Your task to perform on an android device: change keyboard looks Image 0: 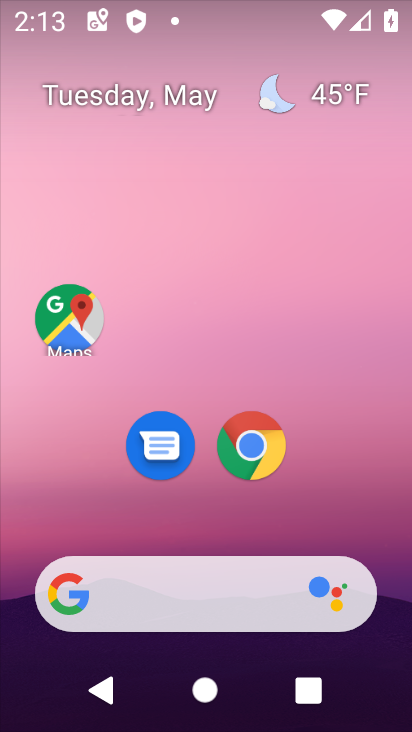
Step 0: drag from (242, 443) to (342, 11)
Your task to perform on an android device: change keyboard looks Image 1: 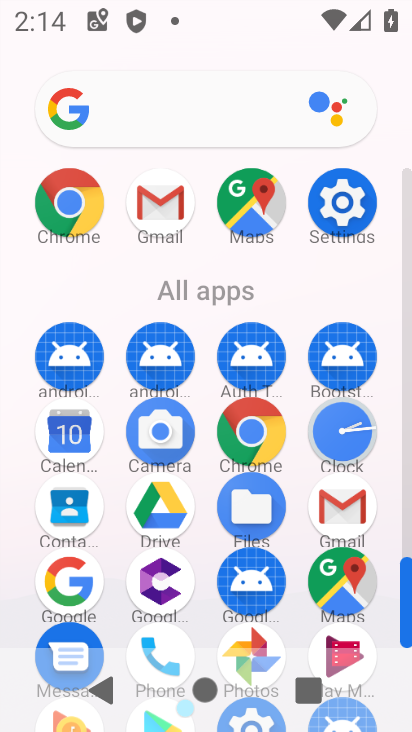
Step 1: click (355, 210)
Your task to perform on an android device: change keyboard looks Image 2: 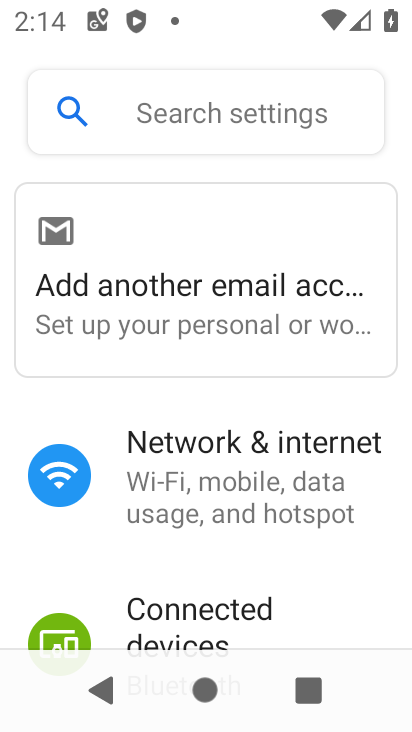
Step 2: drag from (194, 565) to (358, 45)
Your task to perform on an android device: change keyboard looks Image 3: 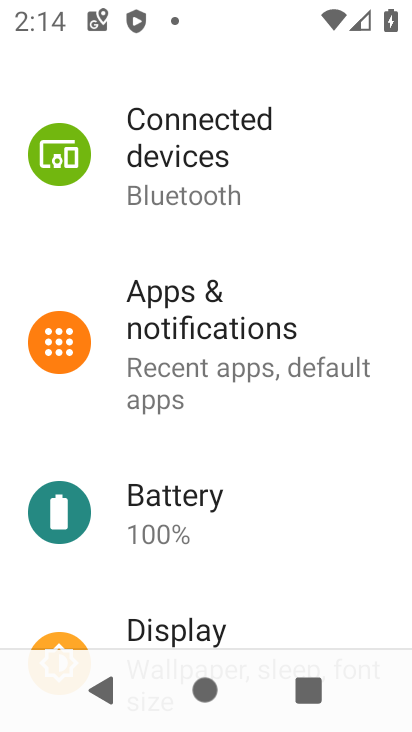
Step 3: drag from (233, 588) to (394, 19)
Your task to perform on an android device: change keyboard looks Image 4: 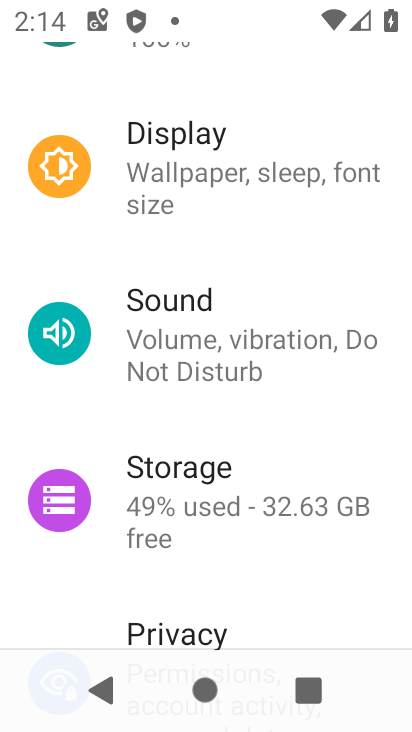
Step 4: drag from (209, 551) to (381, 42)
Your task to perform on an android device: change keyboard looks Image 5: 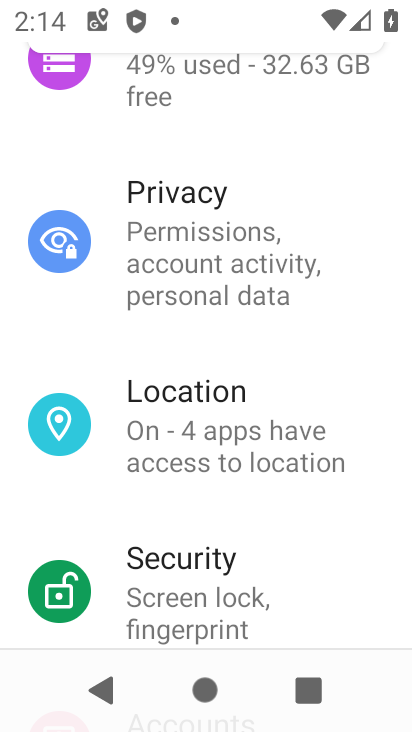
Step 5: drag from (196, 576) to (352, 19)
Your task to perform on an android device: change keyboard looks Image 6: 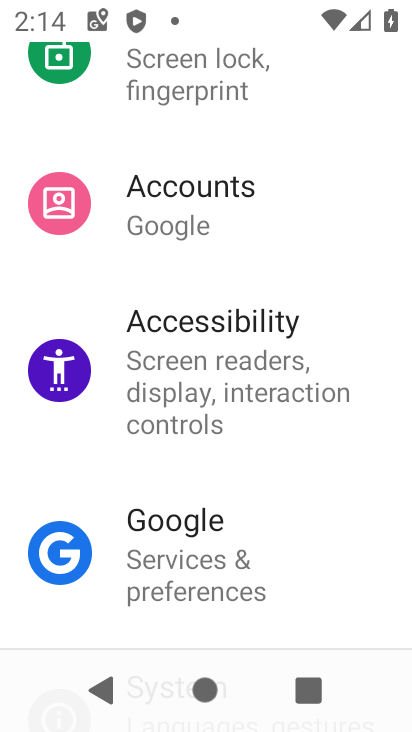
Step 6: drag from (184, 543) to (311, 43)
Your task to perform on an android device: change keyboard looks Image 7: 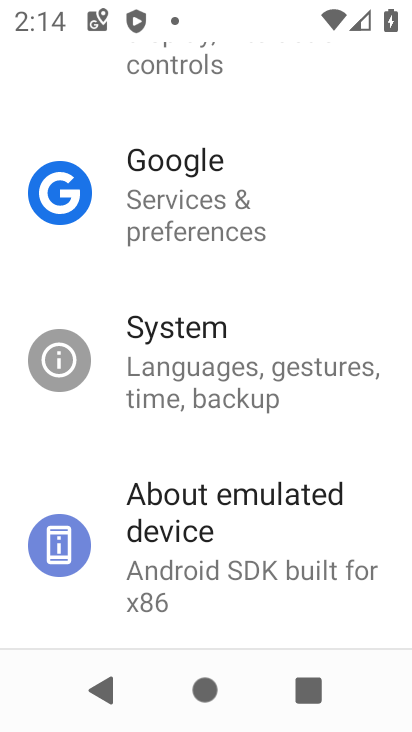
Step 7: drag from (185, 591) to (330, 100)
Your task to perform on an android device: change keyboard looks Image 8: 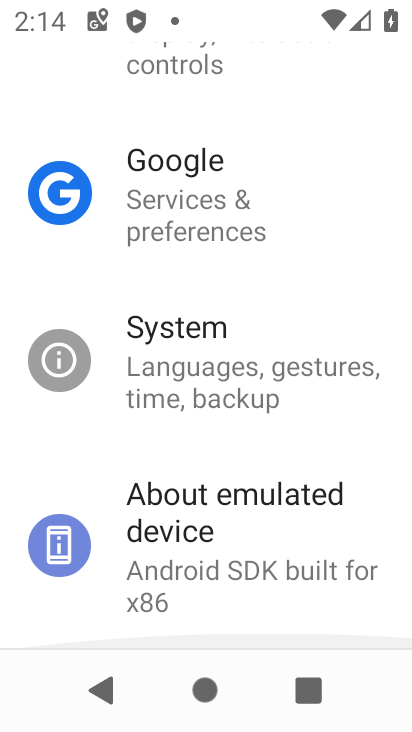
Step 8: click (211, 523)
Your task to perform on an android device: change keyboard looks Image 9: 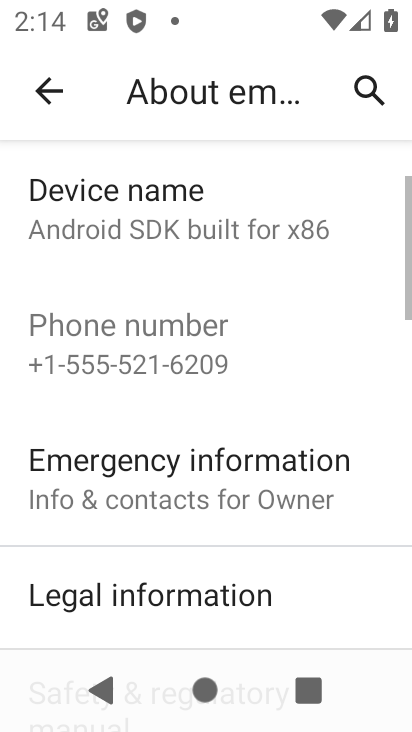
Step 9: click (57, 73)
Your task to perform on an android device: change keyboard looks Image 10: 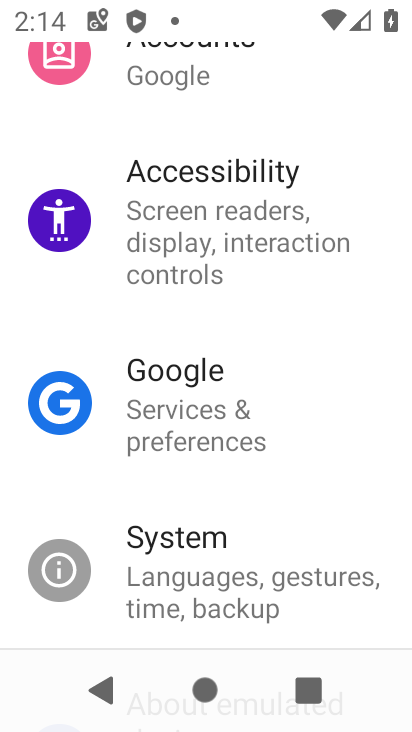
Step 10: click (186, 415)
Your task to perform on an android device: change keyboard looks Image 11: 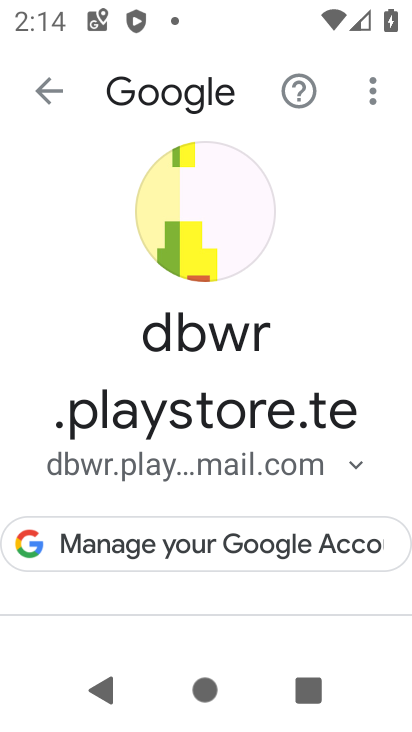
Step 11: drag from (185, 554) to (312, 69)
Your task to perform on an android device: change keyboard looks Image 12: 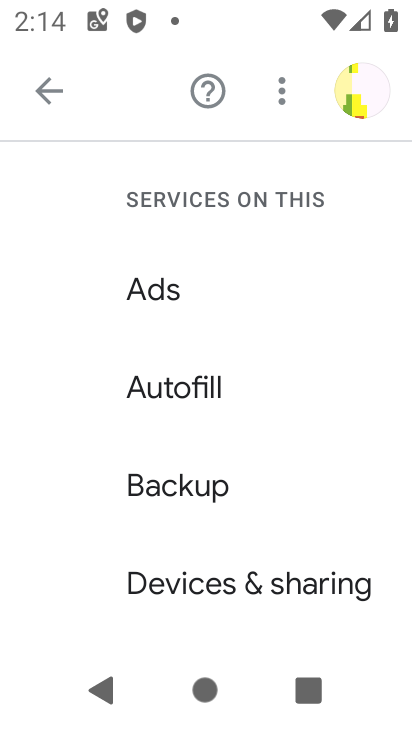
Step 12: click (52, 89)
Your task to perform on an android device: change keyboard looks Image 13: 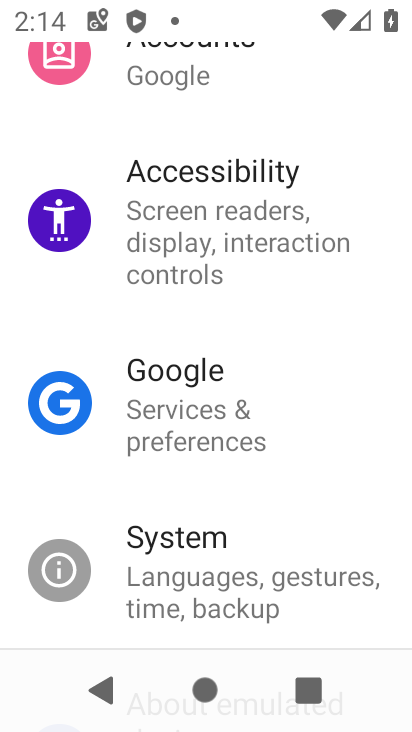
Step 13: click (234, 560)
Your task to perform on an android device: change keyboard looks Image 14: 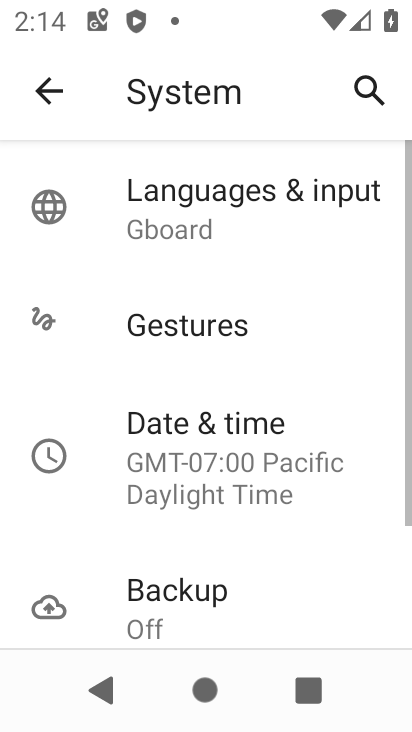
Step 14: click (185, 196)
Your task to perform on an android device: change keyboard looks Image 15: 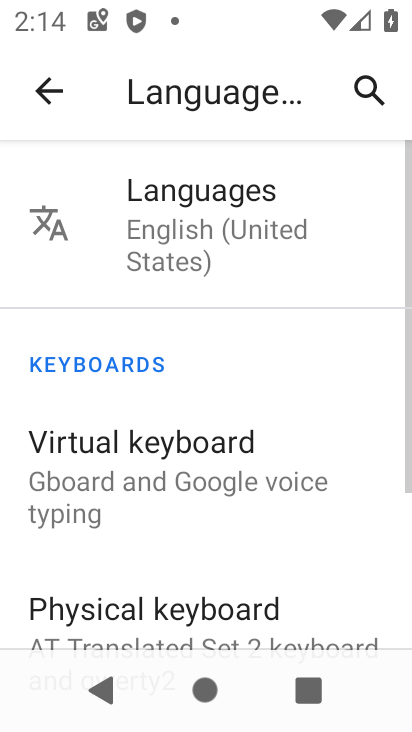
Step 15: click (143, 472)
Your task to perform on an android device: change keyboard looks Image 16: 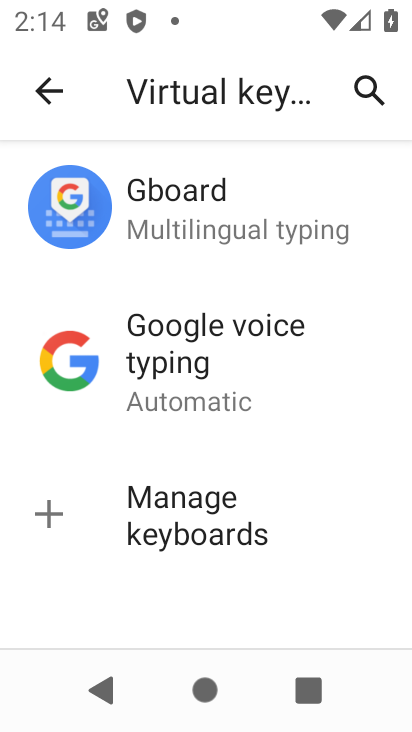
Step 16: click (180, 211)
Your task to perform on an android device: change keyboard looks Image 17: 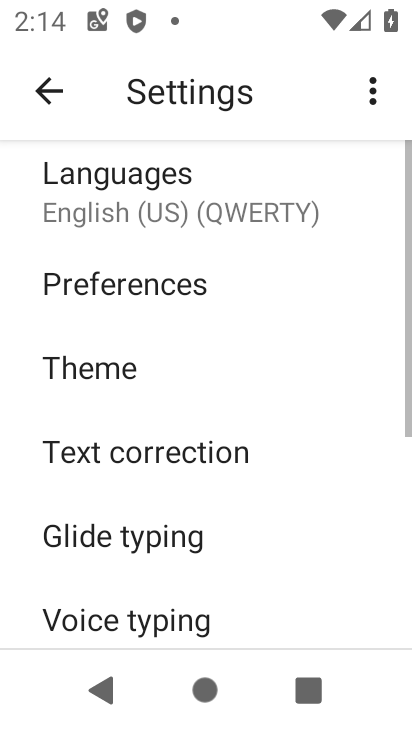
Step 17: click (100, 351)
Your task to perform on an android device: change keyboard looks Image 18: 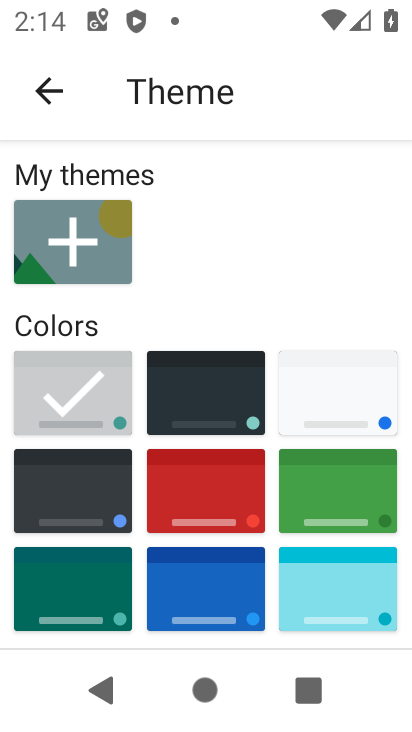
Step 18: click (158, 486)
Your task to perform on an android device: change keyboard looks Image 19: 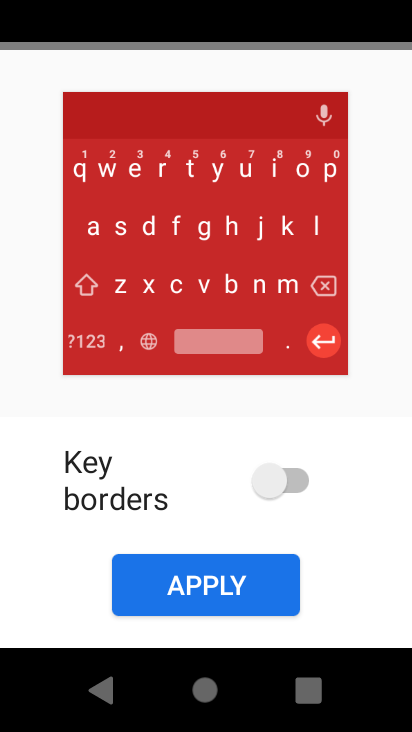
Step 19: click (287, 479)
Your task to perform on an android device: change keyboard looks Image 20: 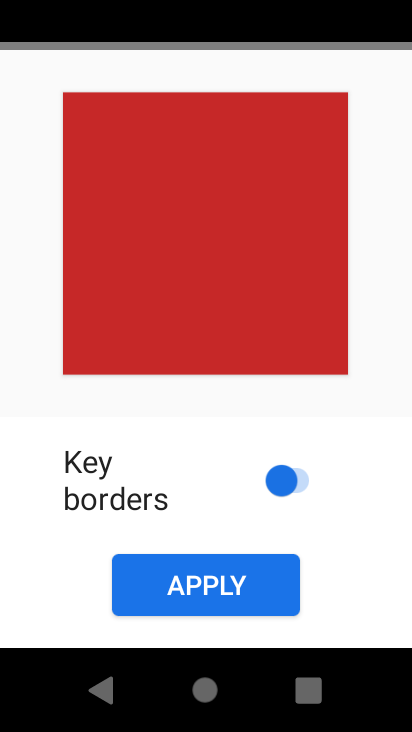
Step 20: click (187, 585)
Your task to perform on an android device: change keyboard looks Image 21: 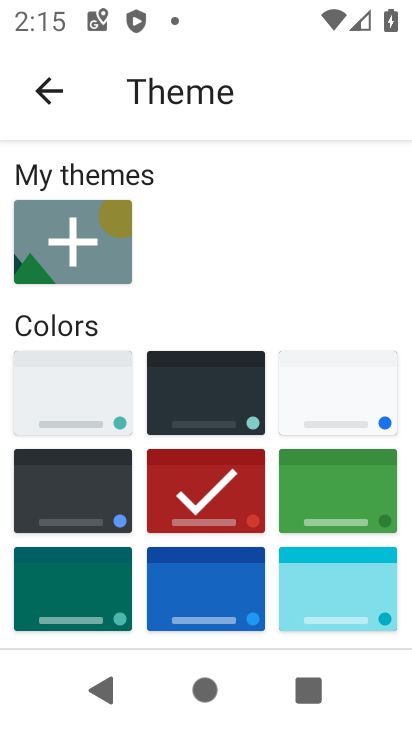
Step 21: task complete